Your task to perform on an android device: open chrome and create a bookmark for the current page Image 0: 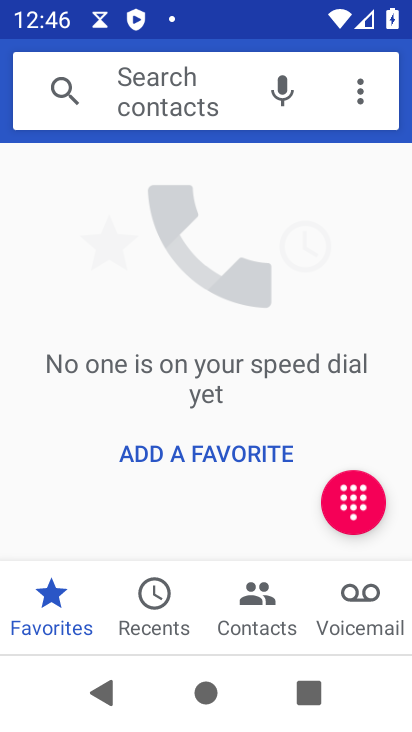
Step 0: press home button
Your task to perform on an android device: open chrome and create a bookmark for the current page Image 1: 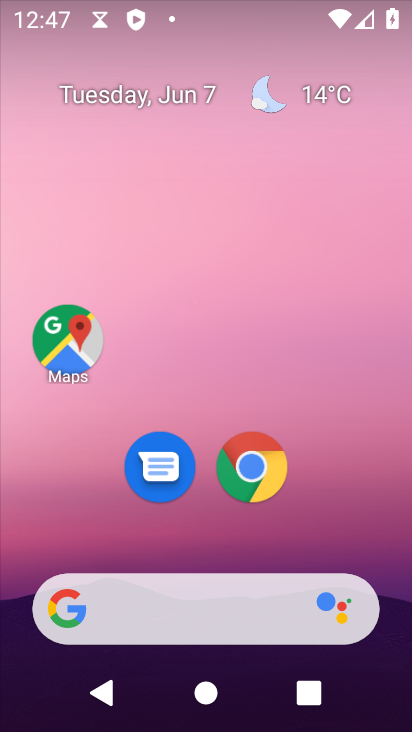
Step 1: click (254, 483)
Your task to perform on an android device: open chrome and create a bookmark for the current page Image 2: 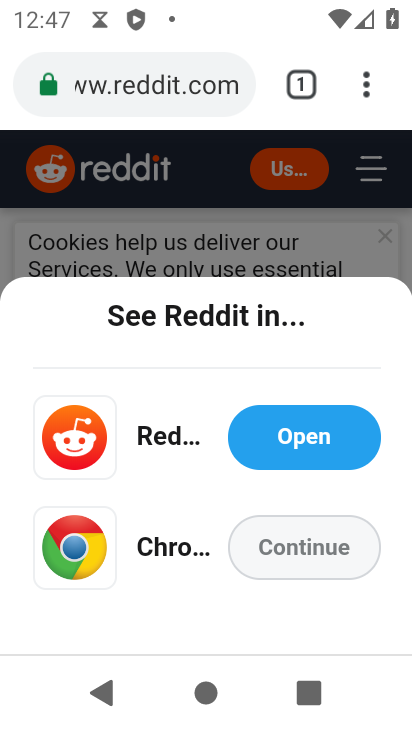
Step 2: task complete